Your task to perform on an android device: Open Google Image 0: 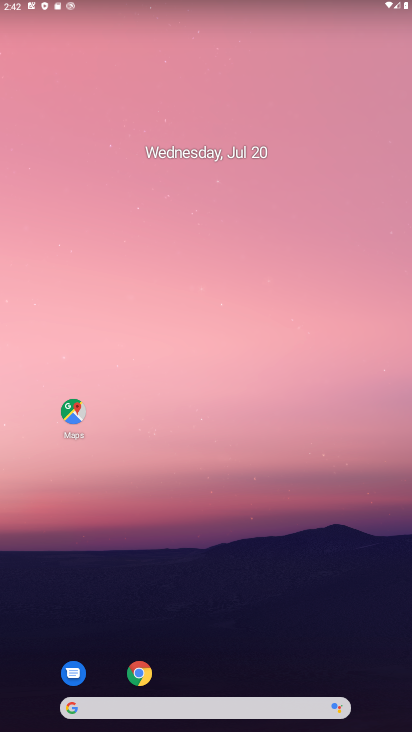
Step 0: drag from (261, 544) to (256, 224)
Your task to perform on an android device: Open Google Image 1: 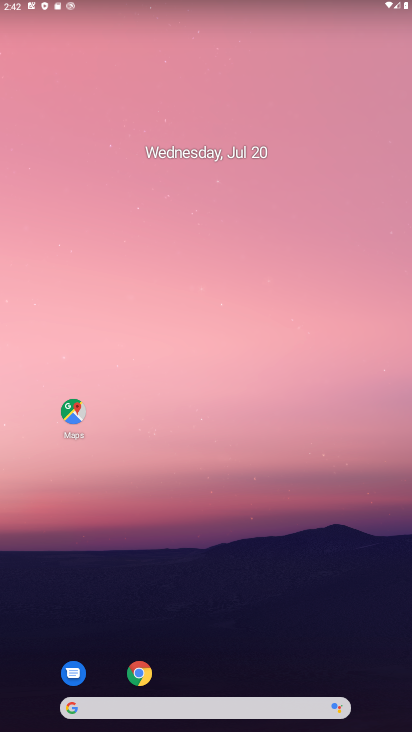
Step 1: drag from (235, 586) to (247, 119)
Your task to perform on an android device: Open Google Image 2: 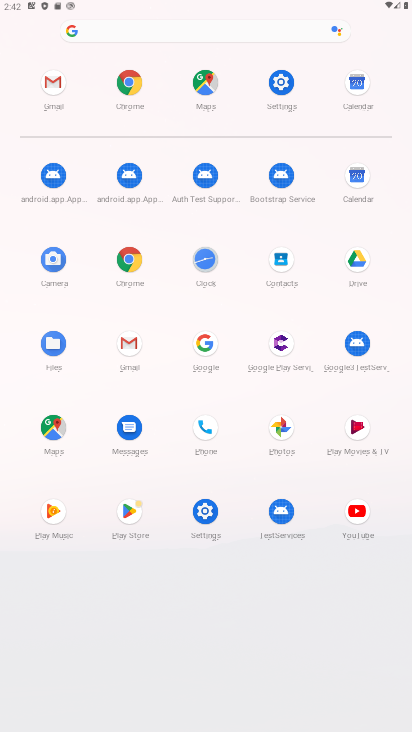
Step 2: click (205, 349)
Your task to perform on an android device: Open Google Image 3: 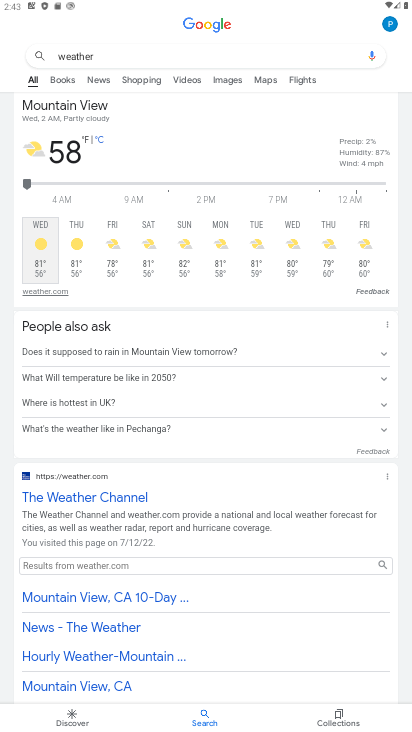
Step 3: task complete